Your task to perform on an android device: Open wifi settings Image 0: 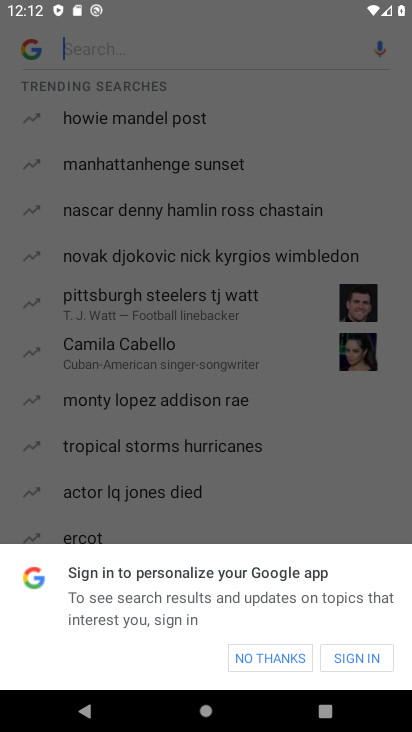
Step 0: press home button
Your task to perform on an android device: Open wifi settings Image 1: 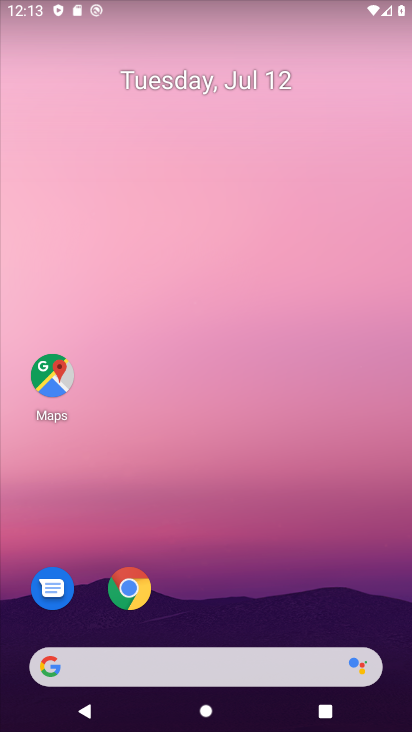
Step 1: drag from (236, 710) to (189, 154)
Your task to perform on an android device: Open wifi settings Image 2: 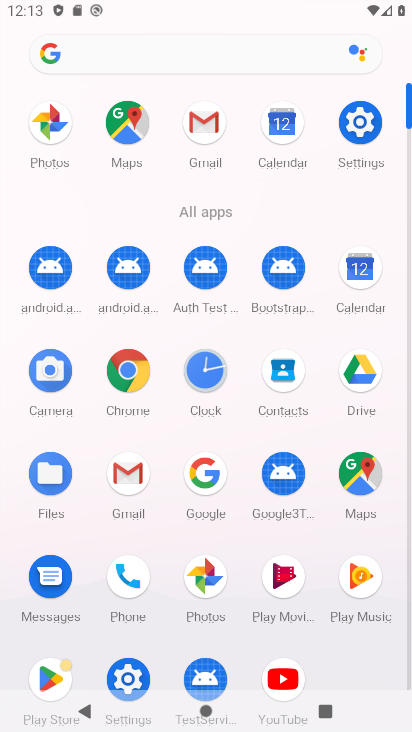
Step 2: click (359, 131)
Your task to perform on an android device: Open wifi settings Image 3: 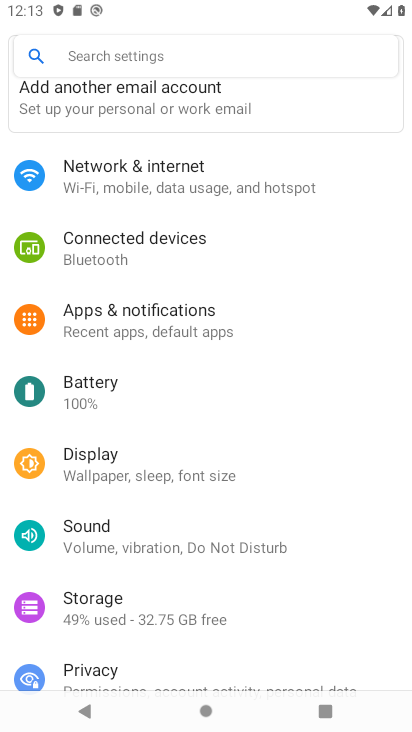
Step 3: click (123, 183)
Your task to perform on an android device: Open wifi settings Image 4: 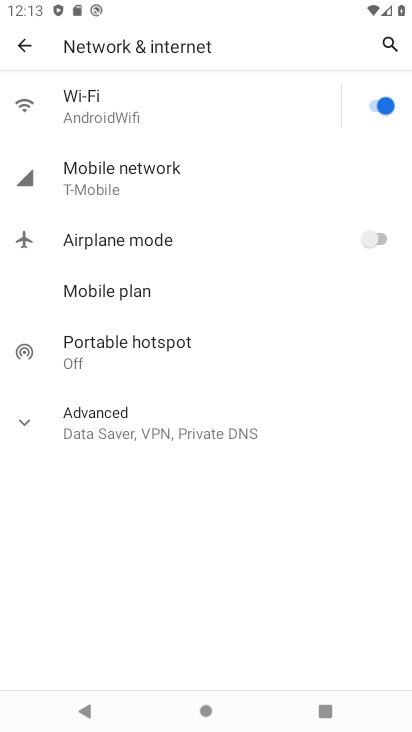
Step 4: click (108, 115)
Your task to perform on an android device: Open wifi settings Image 5: 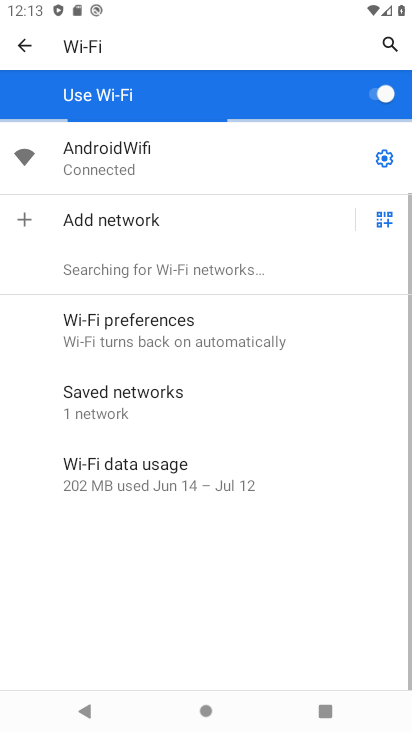
Step 5: task complete